Your task to perform on an android device: check the backup settings in the google photos Image 0: 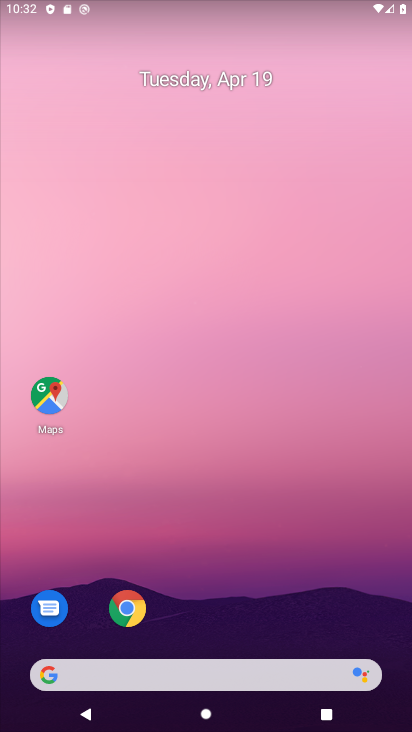
Step 0: click (290, 172)
Your task to perform on an android device: check the backup settings in the google photos Image 1: 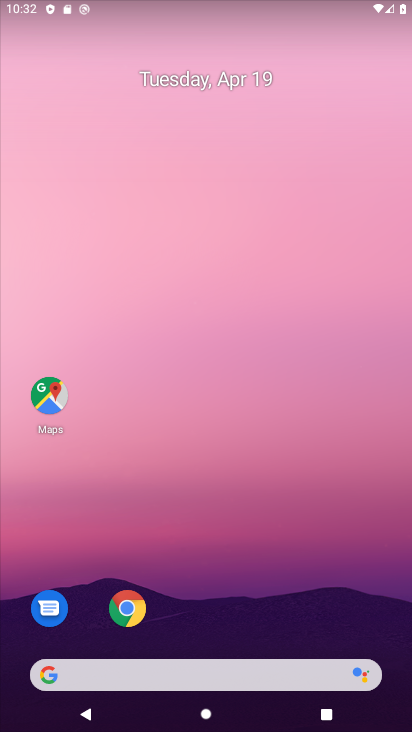
Step 1: drag from (280, 397) to (263, 66)
Your task to perform on an android device: check the backup settings in the google photos Image 2: 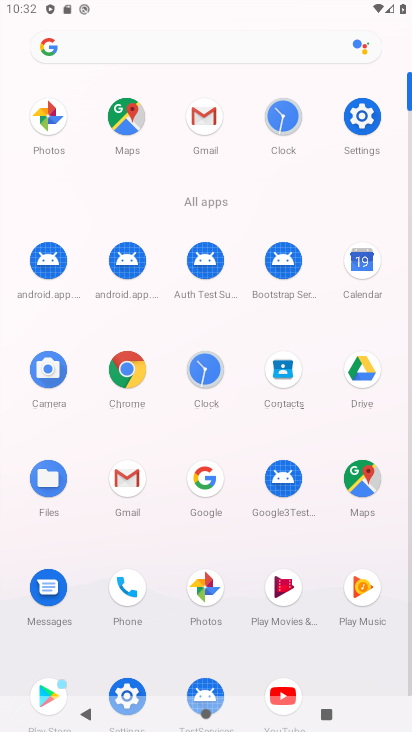
Step 2: click (212, 589)
Your task to perform on an android device: check the backup settings in the google photos Image 3: 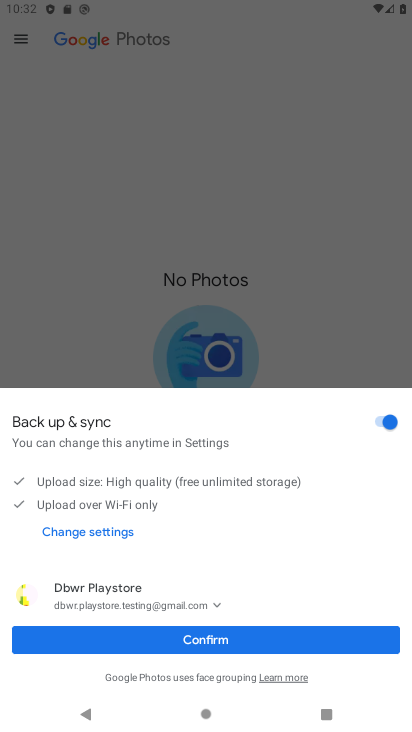
Step 3: click (195, 636)
Your task to perform on an android device: check the backup settings in the google photos Image 4: 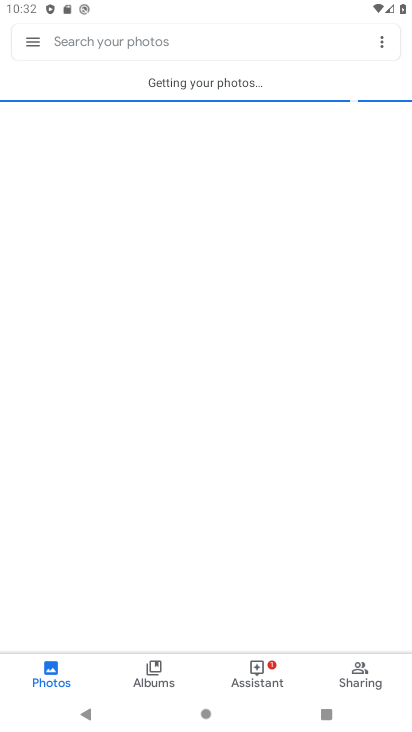
Step 4: click (36, 46)
Your task to perform on an android device: check the backup settings in the google photos Image 5: 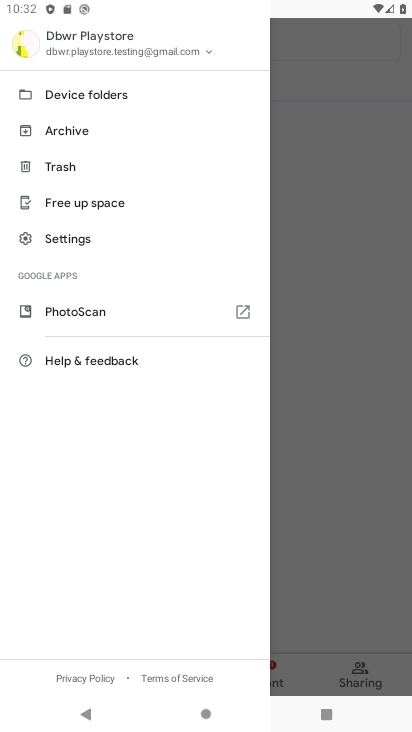
Step 5: click (64, 233)
Your task to perform on an android device: check the backup settings in the google photos Image 6: 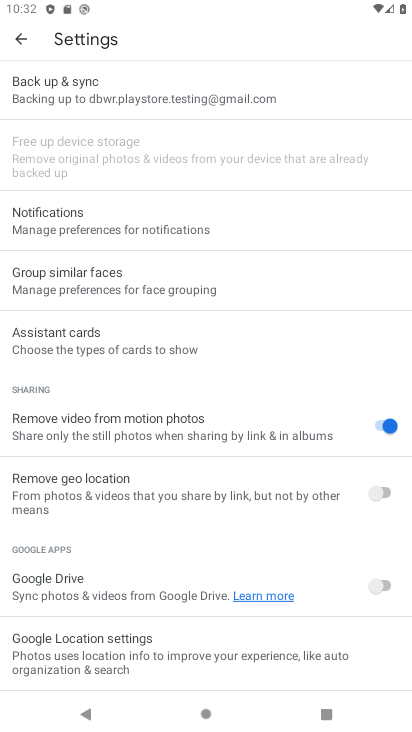
Step 6: click (69, 78)
Your task to perform on an android device: check the backup settings in the google photos Image 7: 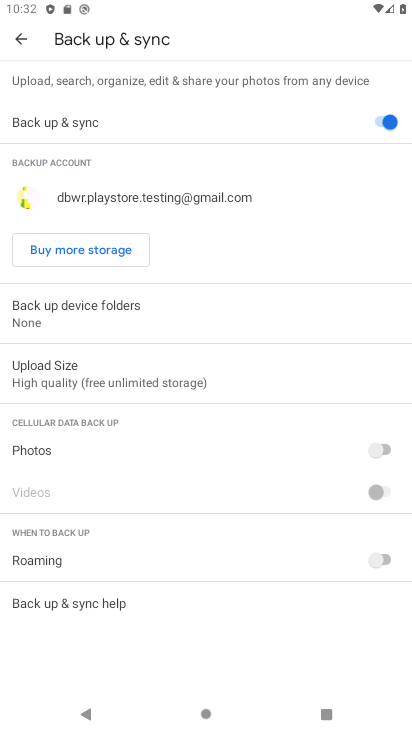
Step 7: task complete